Your task to perform on an android device: What's on my calendar tomorrow? Image 0: 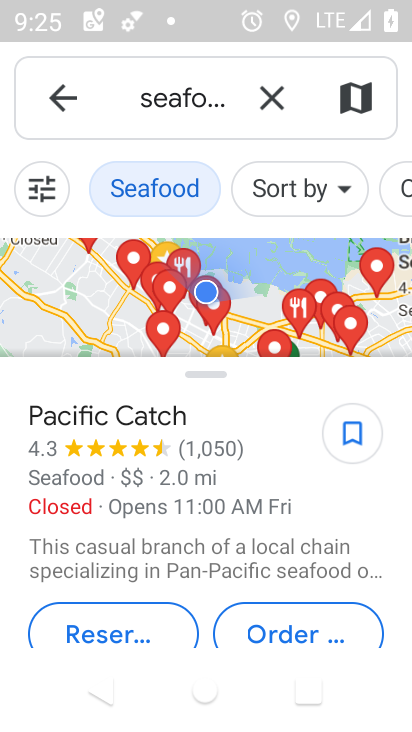
Step 0: press home button
Your task to perform on an android device: What's on my calendar tomorrow? Image 1: 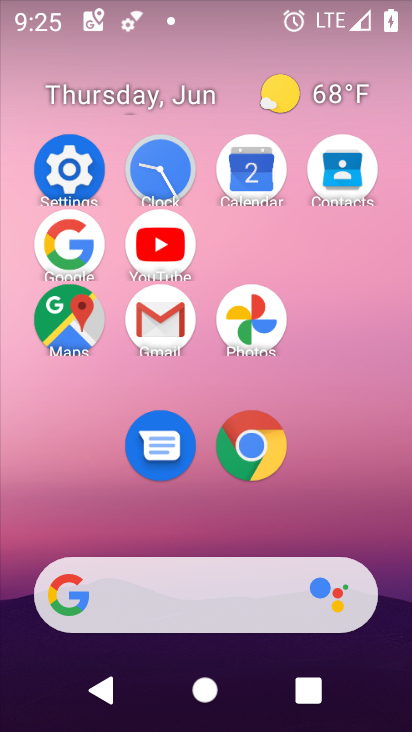
Step 1: click (262, 163)
Your task to perform on an android device: What's on my calendar tomorrow? Image 2: 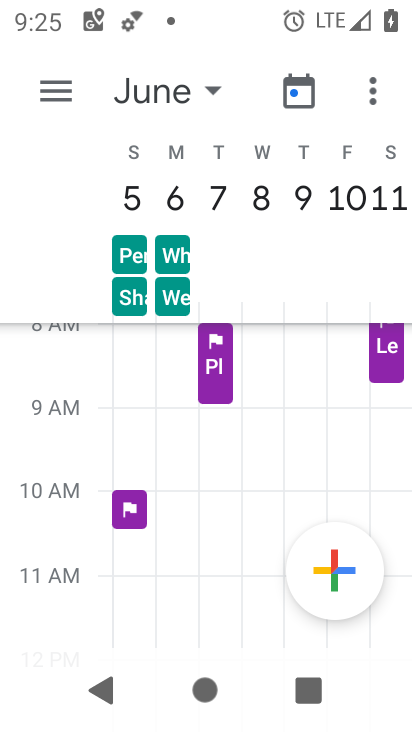
Step 2: drag from (124, 192) to (410, 182)
Your task to perform on an android device: What's on my calendar tomorrow? Image 3: 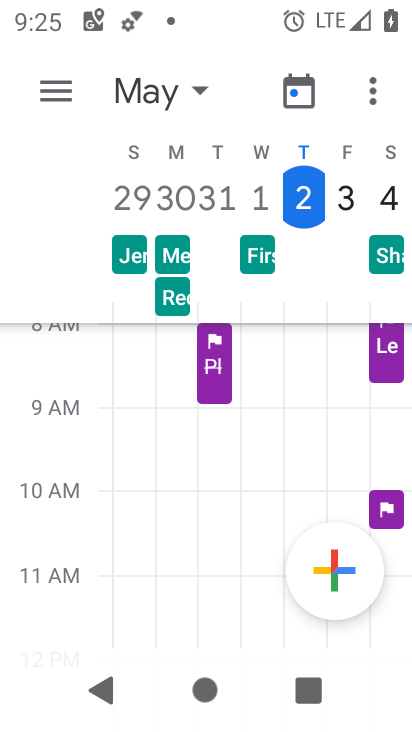
Step 3: click (322, 186)
Your task to perform on an android device: What's on my calendar tomorrow? Image 4: 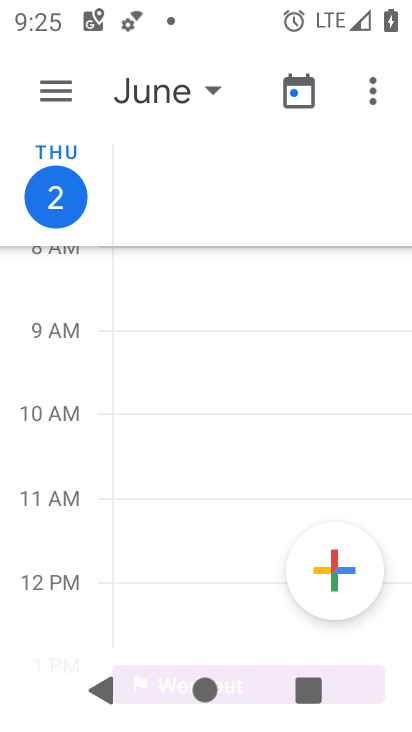
Step 4: task complete